Your task to perform on an android device: Open calendar and show me the first week of next month Image 0: 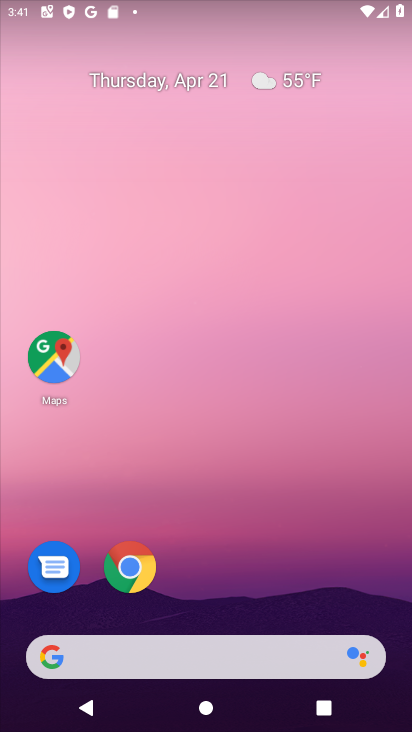
Step 0: drag from (225, 424) to (254, 149)
Your task to perform on an android device: Open calendar and show me the first week of next month Image 1: 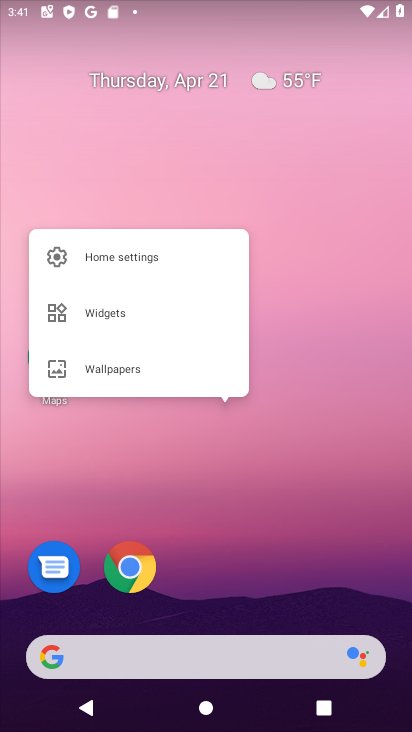
Step 1: click (240, 496)
Your task to perform on an android device: Open calendar and show me the first week of next month Image 2: 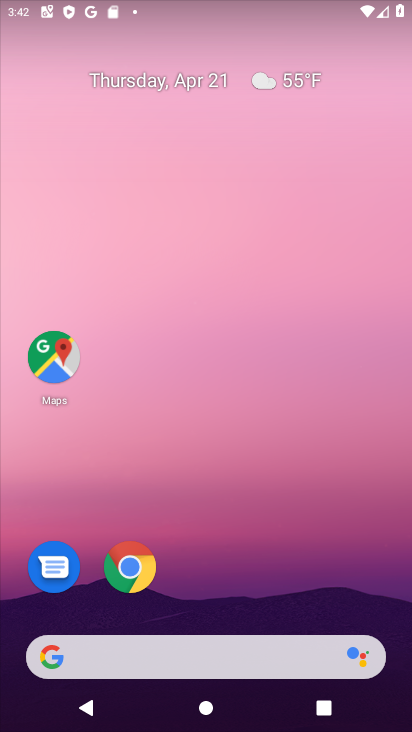
Step 2: drag from (222, 557) to (267, 258)
Your task to perform on an android device: Open calendar and show me the first week of next month Image 3: 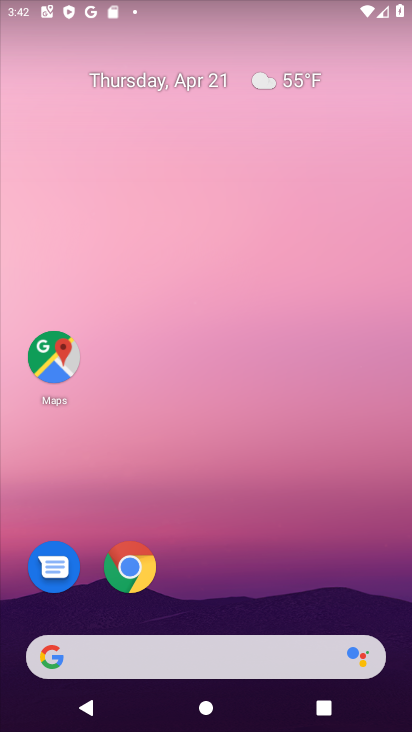
Step 3: drag from (193, 579) to (227, 114)
Your task to perform on an android device: Open calendar and show me the first week of next month Image 4: 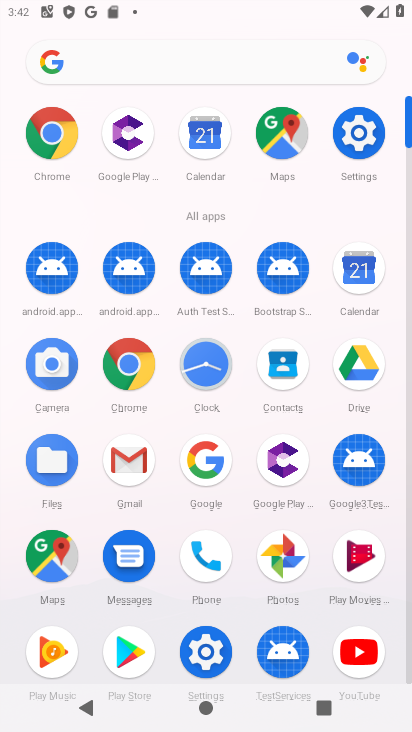
Step 4: click (359, 250)
Your task to perform on an android device: Open calendar and show me the first week of next month Image 5: 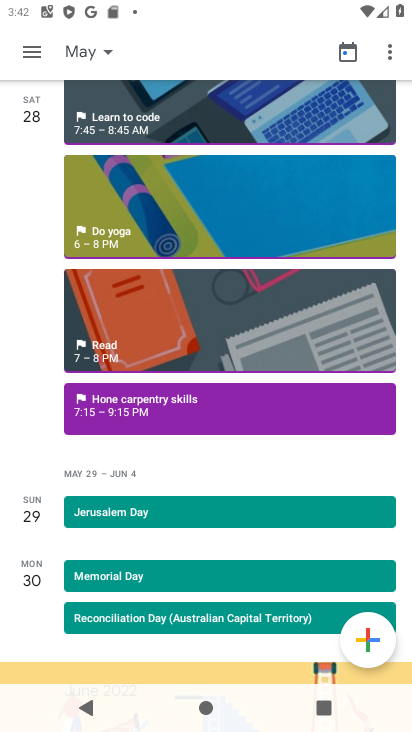
Step 5: click (27, 52)
Your task to perform on an android device: Open calendar and show me the first week of next month Image 6: 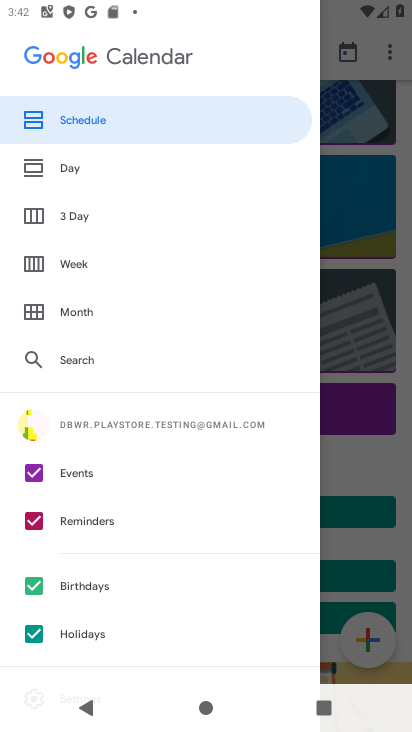
Step 6: click (51, 266)
Your task to perform on an android device: Open calendar and show me the first week of next month Image 7: 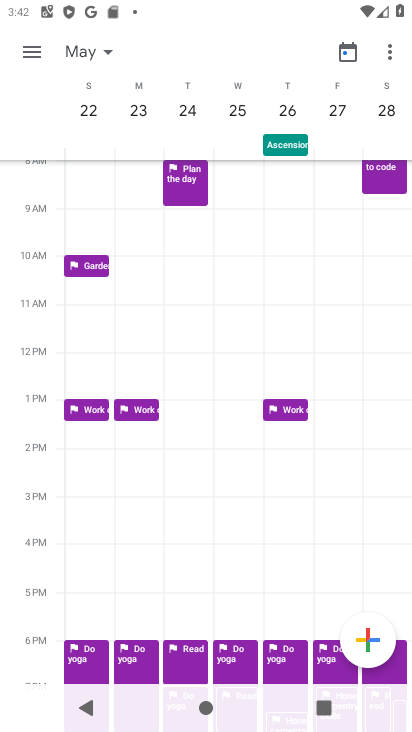
Step 7: task complete